Your task to perform on an android device: change text size in settings app Image 0: 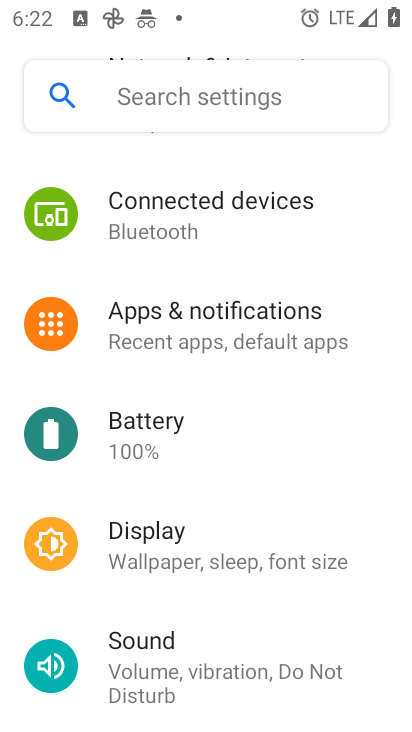
Step 0: drag from (335, 652) to (403, 7)
Your task to perform on an android device: change text size in settings app Image 1: 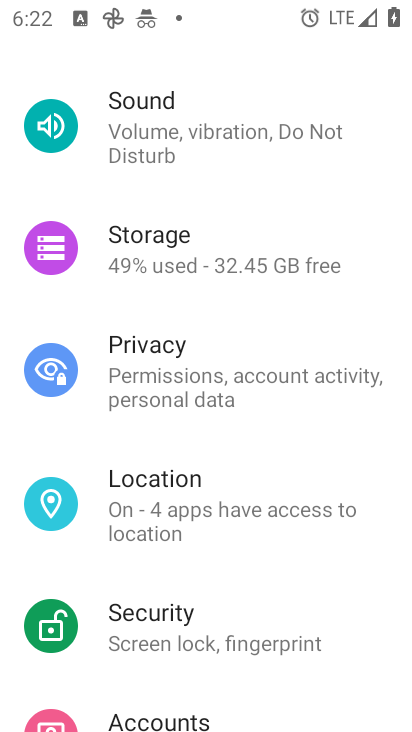
Step 1: drag from (237, 614) to (310, 41)
Your task to perform on an android device: change text size in settings app Image 2: 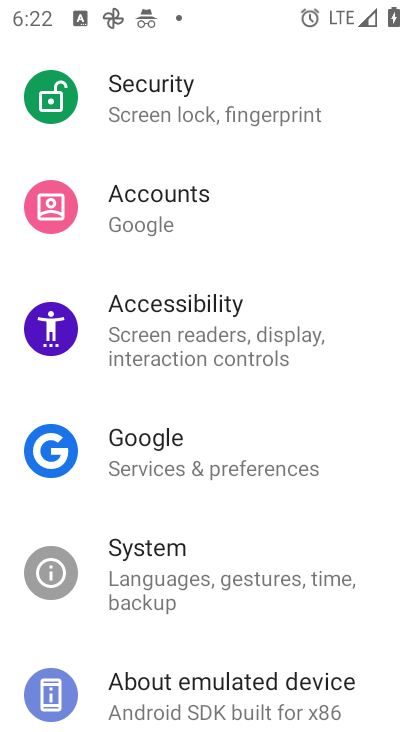
Step 2: click (233, 351)
Your task to perform on an android device: change text size in settings app Image 3: 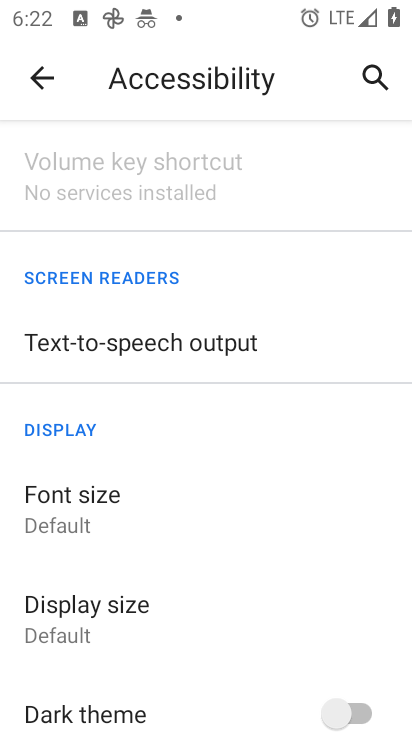
Step 3: click (97, 515)
Your task to perform on an android device: change text size in settings app Image 4: 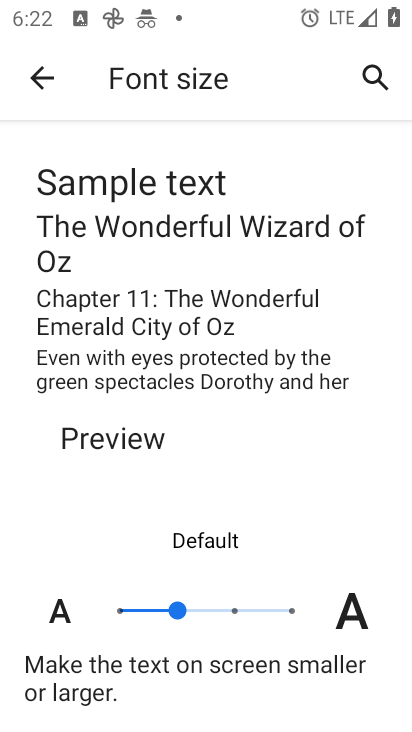
Step 4: click (131, 602)
Your task to perform on an android device: change text size in settings app Image 5: 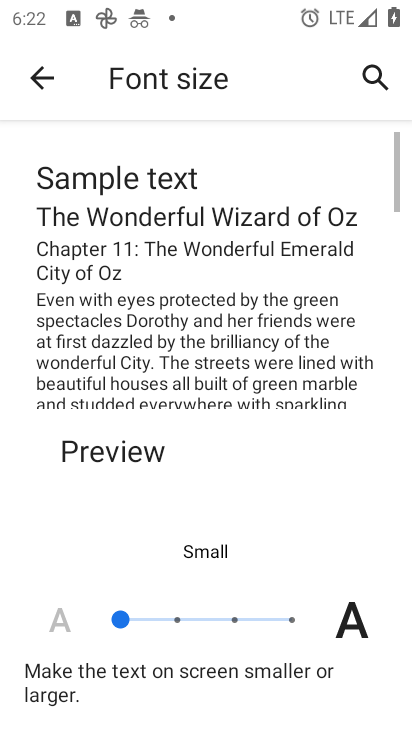
Step 5: task complete